Your task to perform on an android device: Search for sushi restaurants on Maps Image 0: 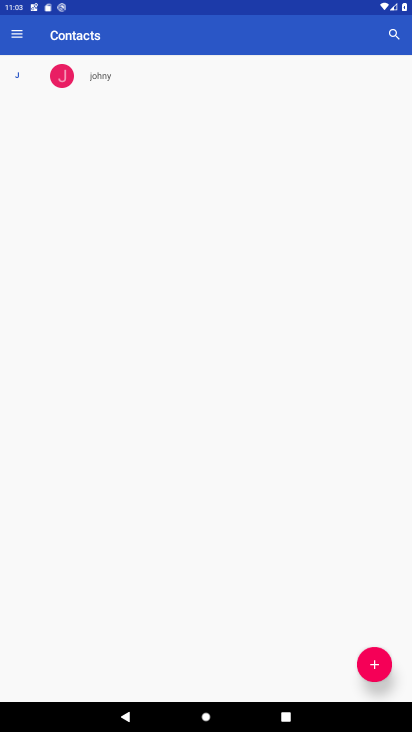
Step 0: press home button
Your task to perform on an android device: Search for sushi restaurants on Maps Image 1: 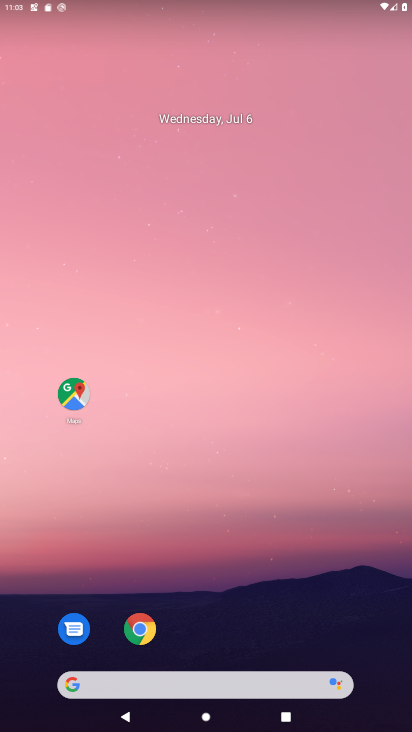
Step 1: drag from (223, 642) to (267, 116)
Your task to perform on an android device: Search for sushi restaurants on Maps Image 2: 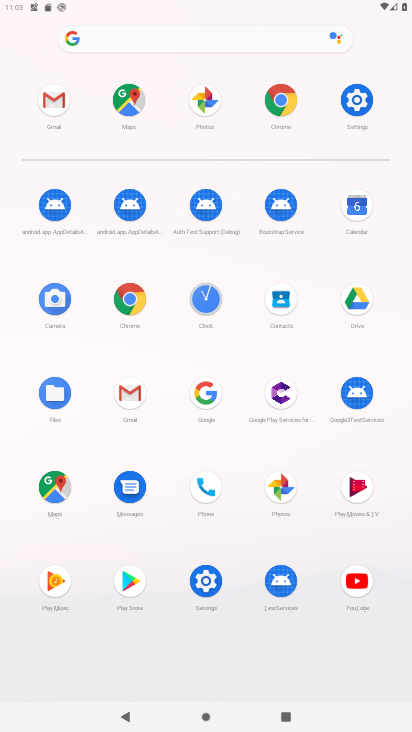
Step 2: click (128, 95)
Your task to perform on an android device: Search for sushi restaurants on Maps Image 3: 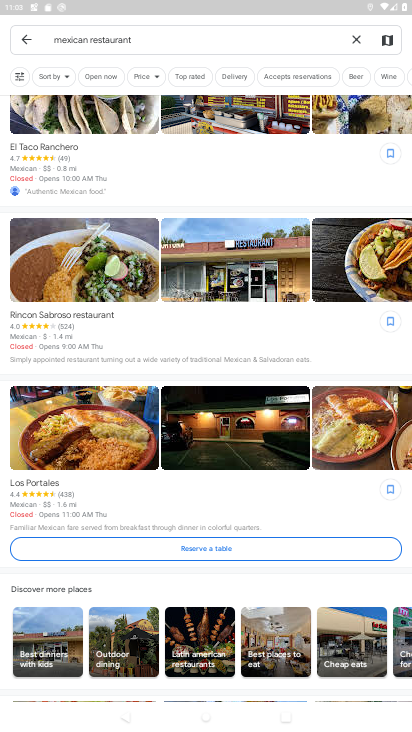
Step 3: click (354, 36)
Your task to perform on an android device: Search for sushi restaurants on Maps Image 4: 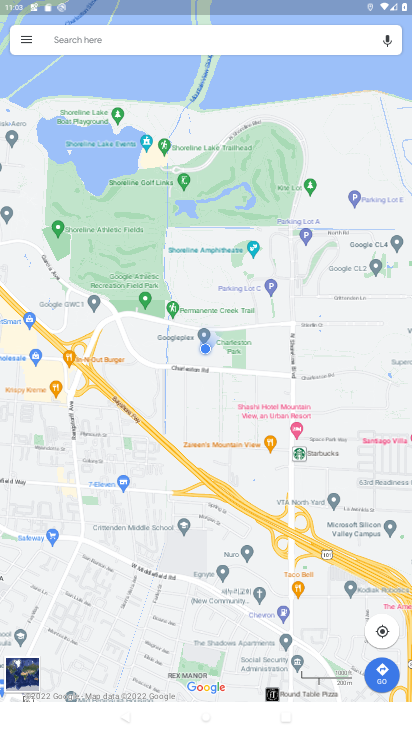
Step 4: click (76, 32)
Your task to perform on an android device: Search for sushi restaurants on Maps Image 5: 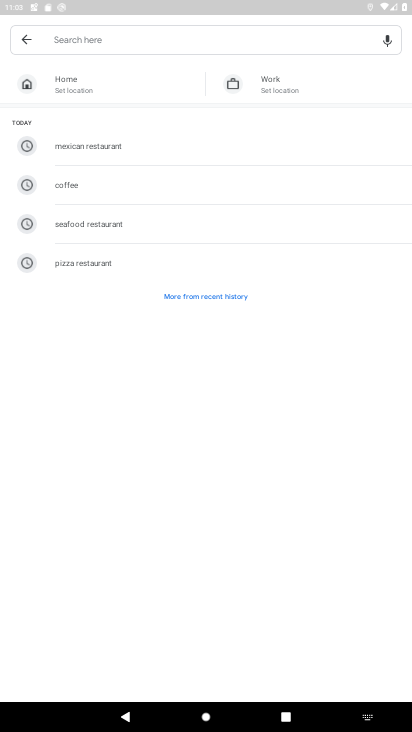
Step 5: type "sushi"
Your task to perform on an android device: Search for sushi restaurants on Maps Image 6: 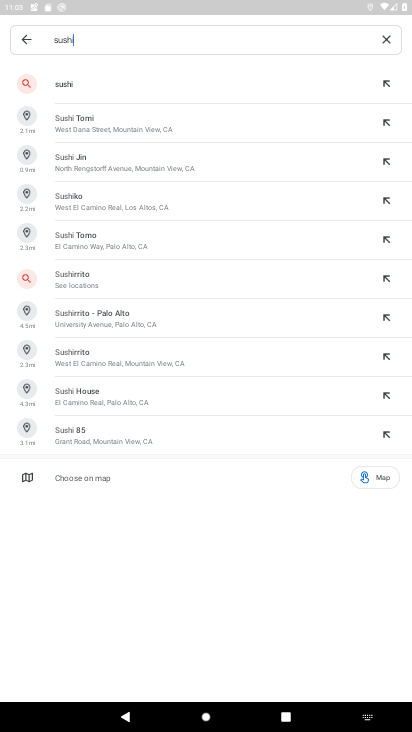
Step 6: type " "
Your task to perform on an android device: Search for sushi restaurants on Maps Image 7: 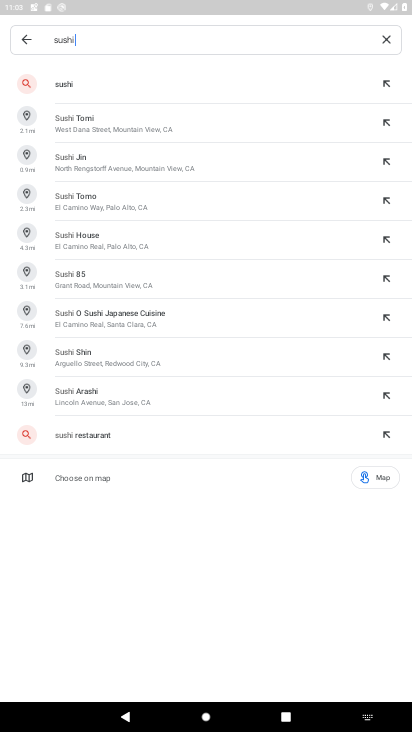
Step 7: type "restaurant"
Your task to perform on an android device: Search for sushi restaurants on Maps Image 8: 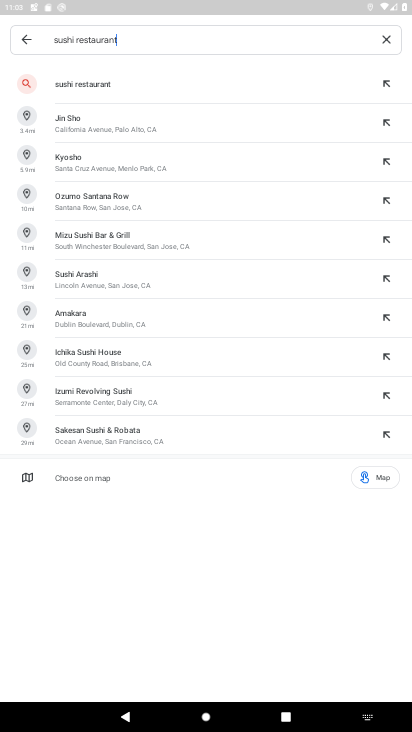
Step 8: click (113, 99)
Your task to perform on an android device: Search for sushi restaurants on Maps Image 9: 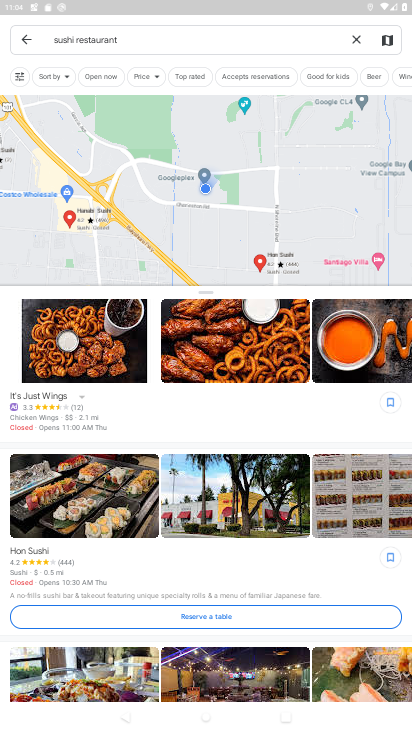
Step 9: task complete